Your task to perform on an android device: turn off improve location accuracy Image 0: 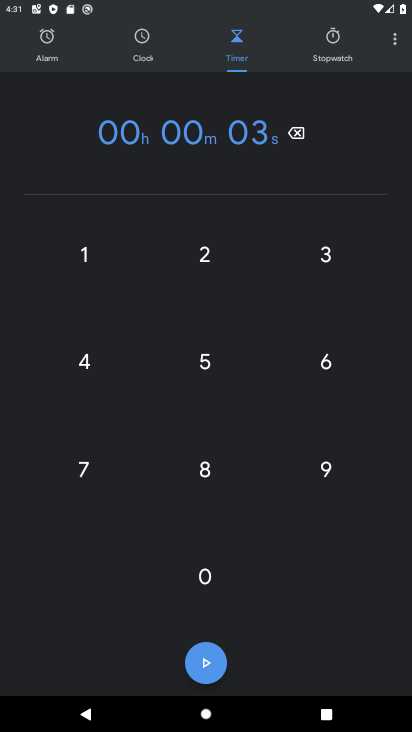
Step 0: press home button
Your task to perform on an android device: turn off improve location accuracy Image 1: 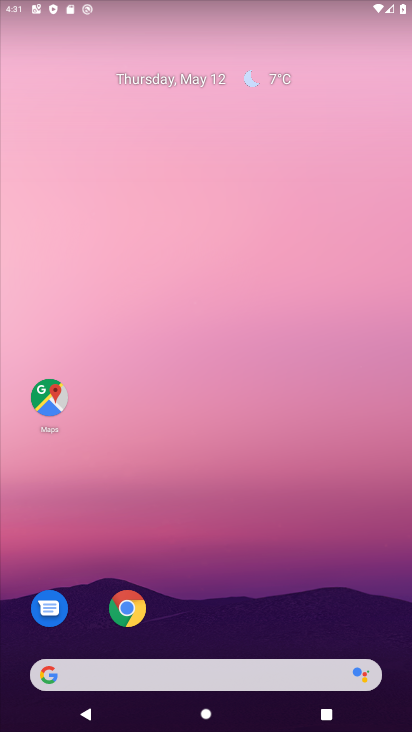
Step 1: drag from (195, 624) to (208, 210)
Your task to perform on an android device: turn off improve location accuracy Image 2: 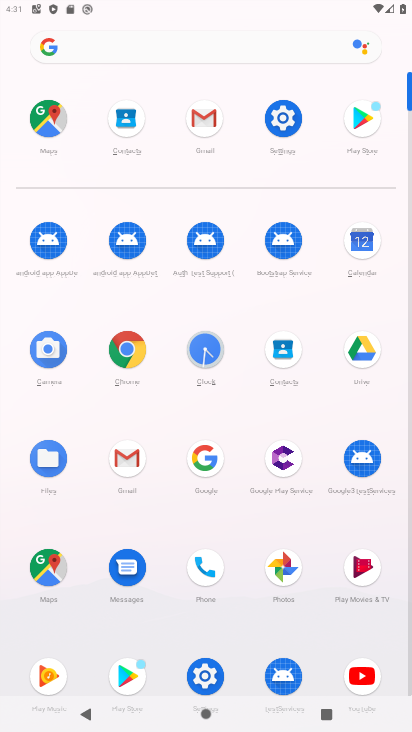
Step 2: click (283, 127)
Your task to perform on an android device: turn off improve location accuracy Image 3: 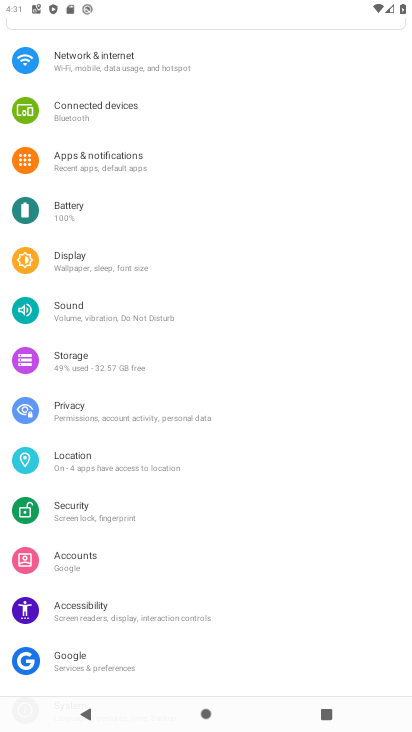
Step 3: click (150, 475)
Your task to perform on an android device: turn off improve location accuracy Image 4: 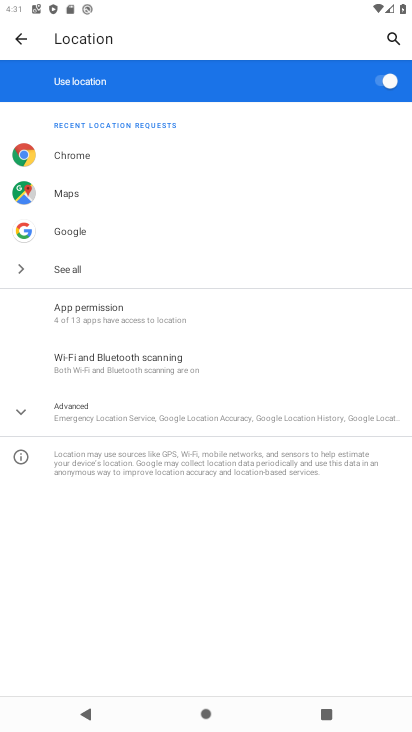
Step 4: click (107, 407)
Your task to perform on an android device: turn off improve location accuracy Image 5: 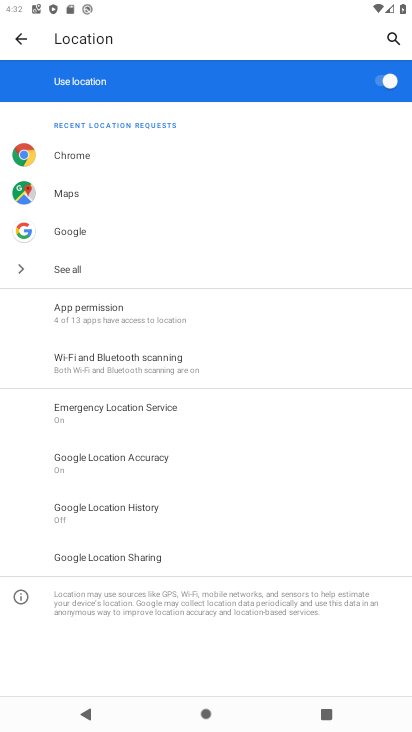
Step 5: click (155, 450)
Your task to perform on an android device: turn off improve location accuracy Image 6: 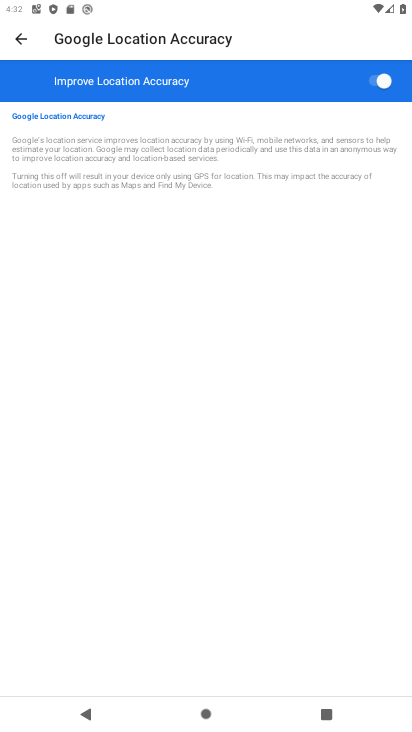
Step 6: task complete